Your task to perform on an android device: Open calendar and show me the third week of next month Image 0: 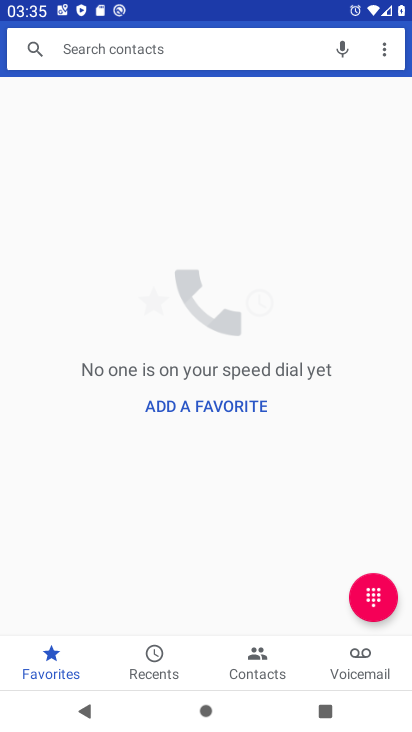
Step 0: press home button
Your task to perform on an android device: Open calendar and show me the third week of next month Image 1: 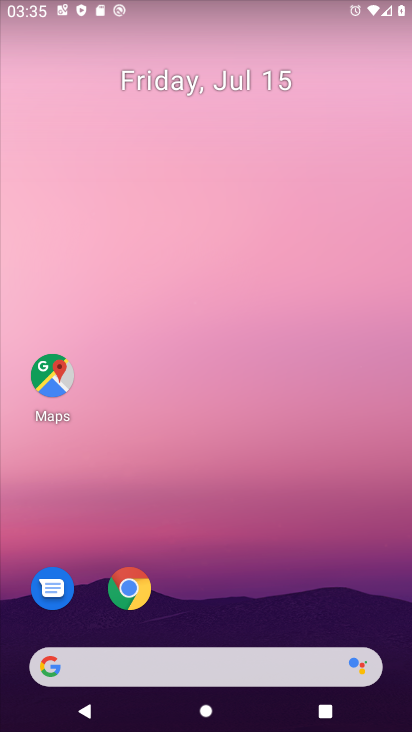
Step 1: drag from (202, 672) to (196, 315)
Your task to perform on an android device: Open calendar and show me the third week of next month Image 2: 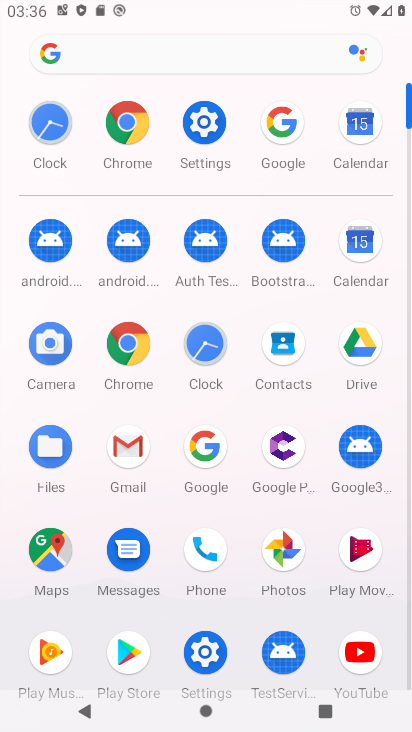
Step 2: click (360, 126)
Your task to perform on an android device: Open calendar and show me the third week of next month Image 3: 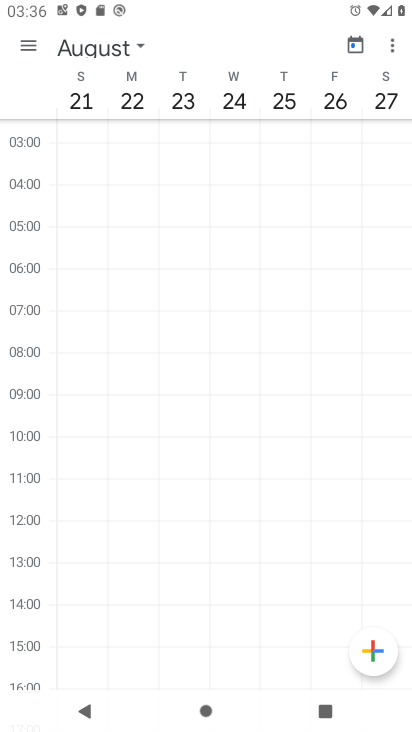
Step 3: click (357, 45)
Your task to perform on an android device: Open calendar and show me the third week of next month Image 4: 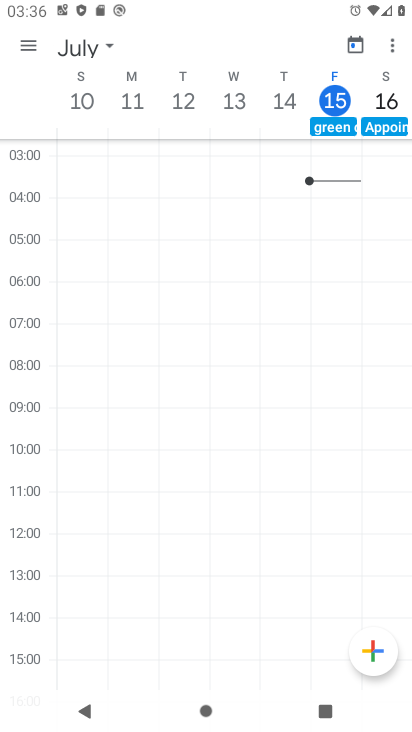
Step 4: click (108, 39)
Your task to perform on an android device: Open calendar and show me the third week of next month Image 5: 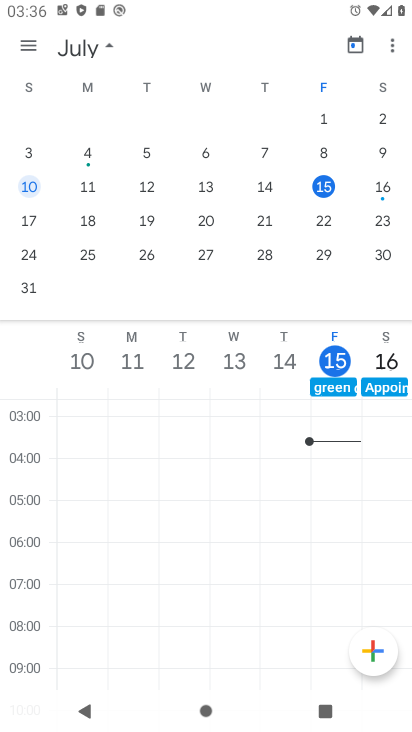
Step 5: drag from (361, 224) to (12, 272)
Your task to perform on an android device: Open calendar and show me the third week of next month Image 6: 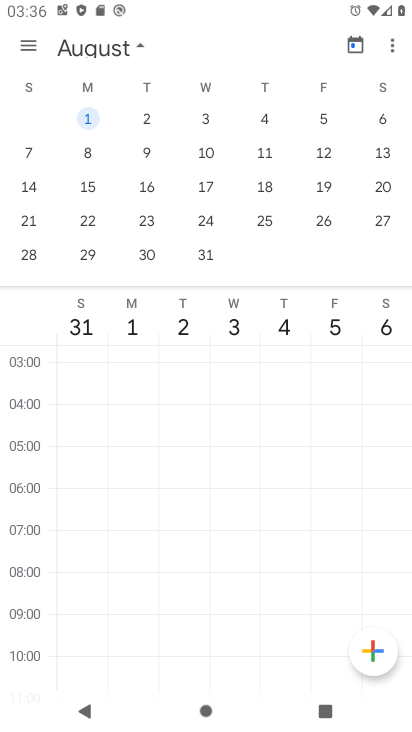
Step 6: click (96, 195)
Your task to perform on an android device: Open calendar and show me the third week of next month Image 7: 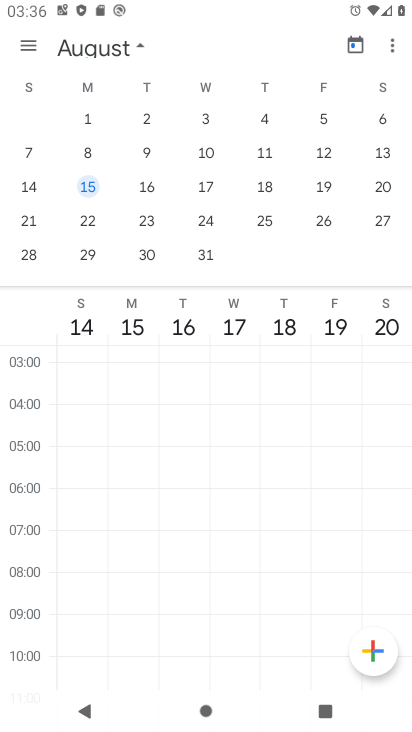
Step 7: click (27, 44)
Your task to perform on an android device: Open calendar and show me the third week of next month Image 8: 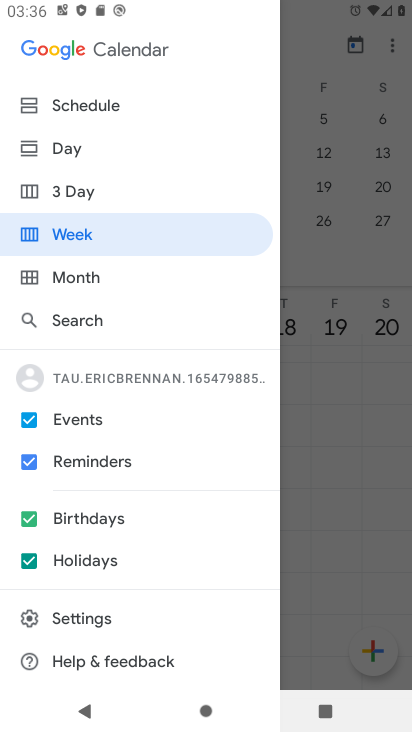
Step 8: click (85, 225)
Your task to perform on an android device: Open calendar and show me the third week of next month Image 9: 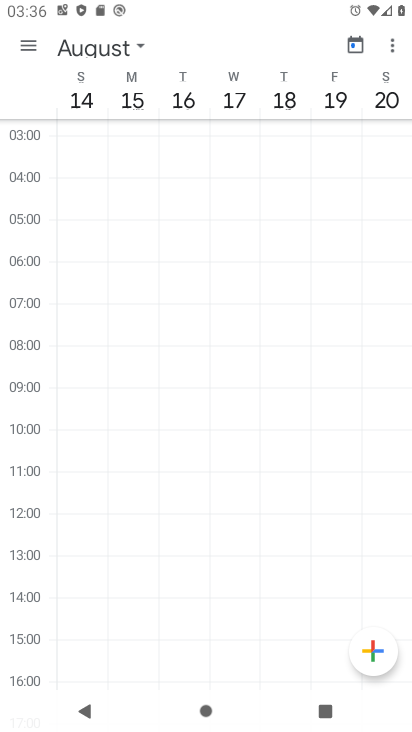
Step 9: task complete